Your task to perform on an android device: What's on my calendar today? Image 0: 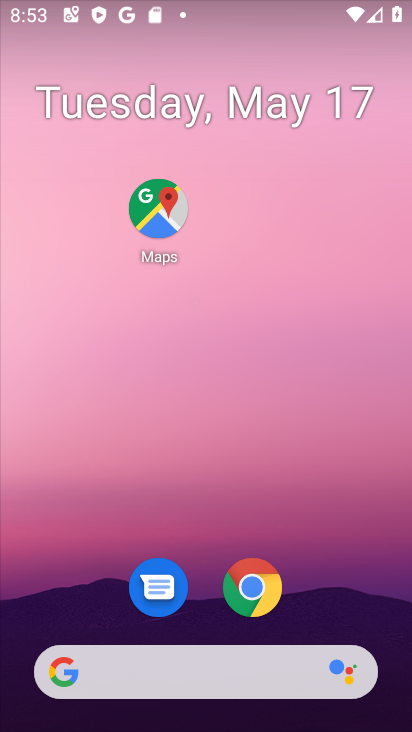
Step 0: drag from (0, 557) to (257, 168)
Your task to perform on an android device: What's on my calendar today? Image 1: 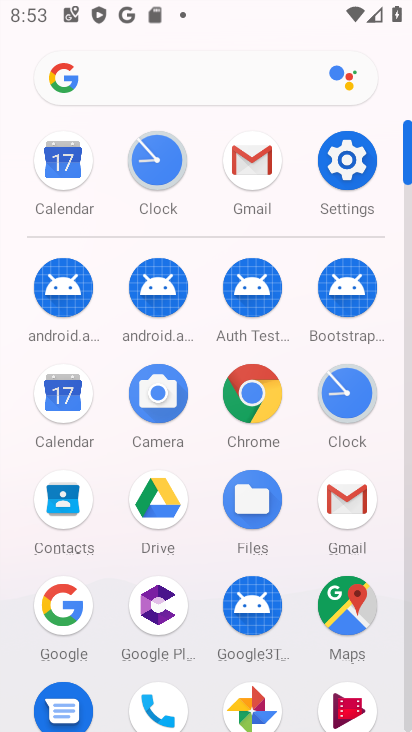
Step 1: click (50, 182)
Your task to perform on an android device: What's on my calendar today? Image 2: 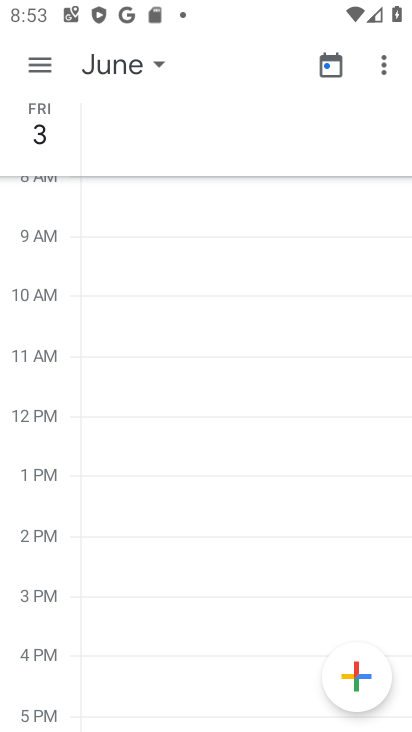
Step 2: click (121, 69)
Your task to perform on an android device: What's on my calendar today? Image 3: 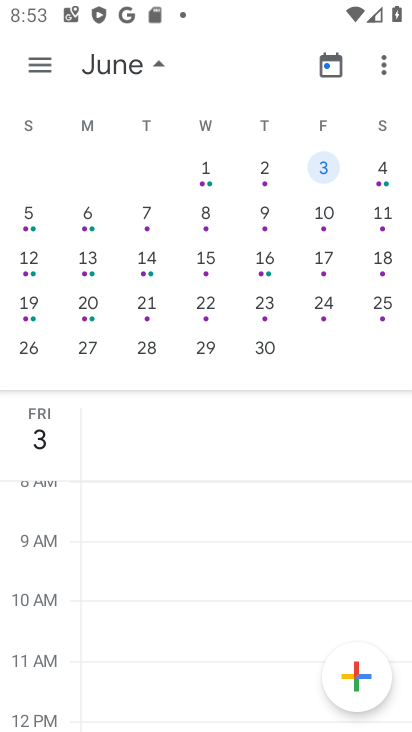
Step 3: drag from (37, 268) to (398, 413)
Your task to perform on an android device: What's on my calendar today? Image 4: 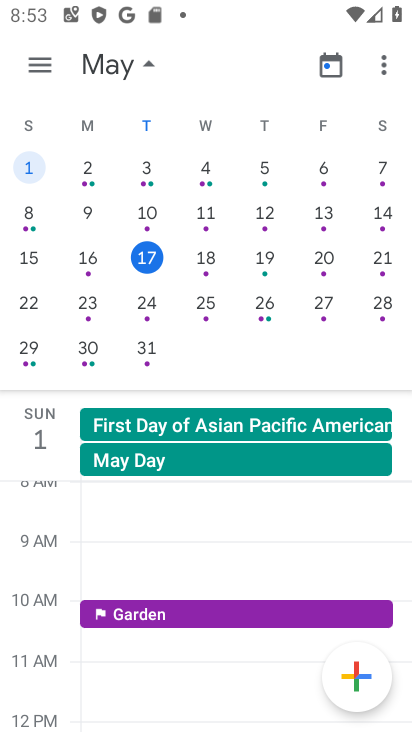
Step 4: click (150, 254)
Your task to perform on an android device: What's on my calendar today? Image 5: 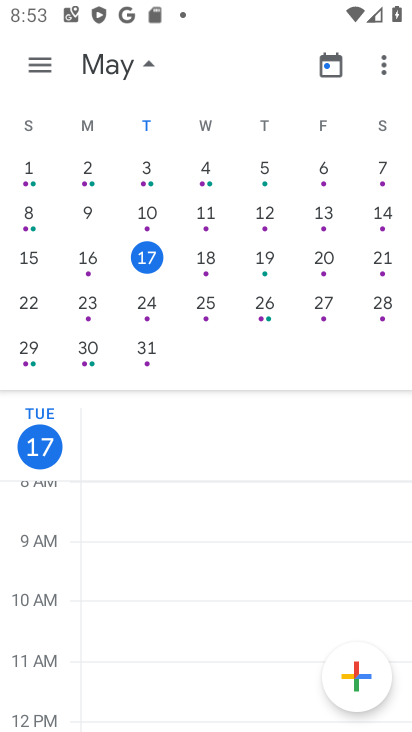
Step 5: task complete